Your task to perform on an android device: change alarm snooze length Image 0: 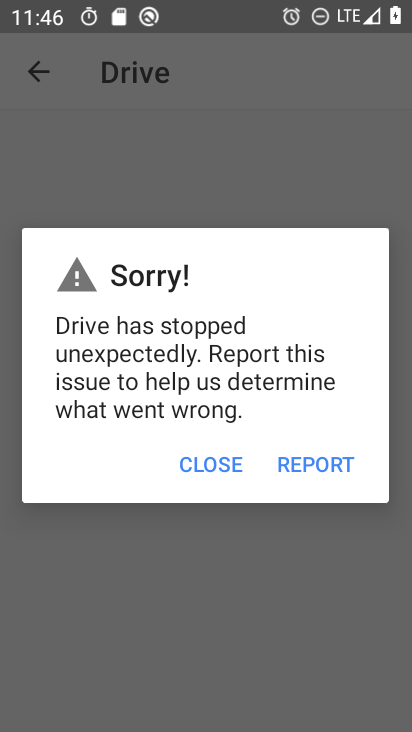
Step 0: press home button
Your task to perform on an android device: change alarm snooze length Image 1: 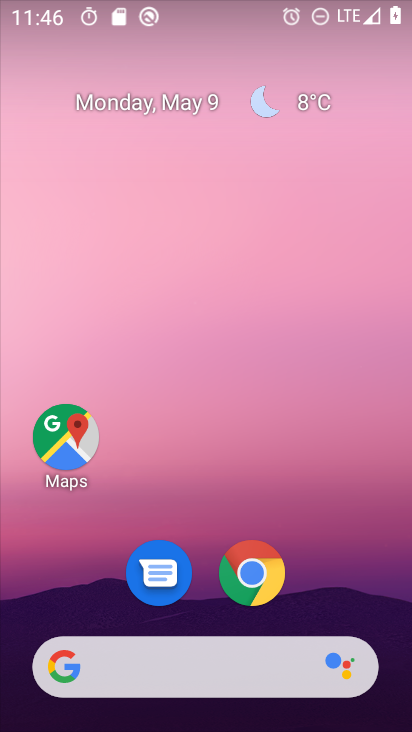
Step 1: drag from (337, 505) to (299, 112)
Your task to perform on an android device: change alarm snooze length Image 2: 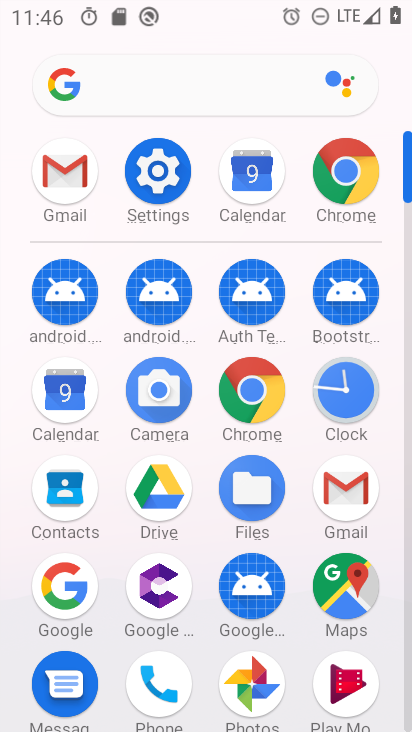
Step 2: click (352, 397)
Your task to perform on an android device: change alarm snooze length Image 3: 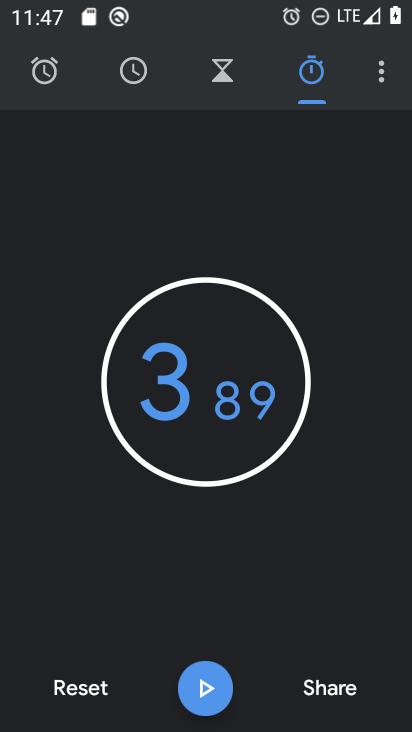
Step 3: click (378, 70)
Your task to perform on an android device: change alarm snooze length Image 4: 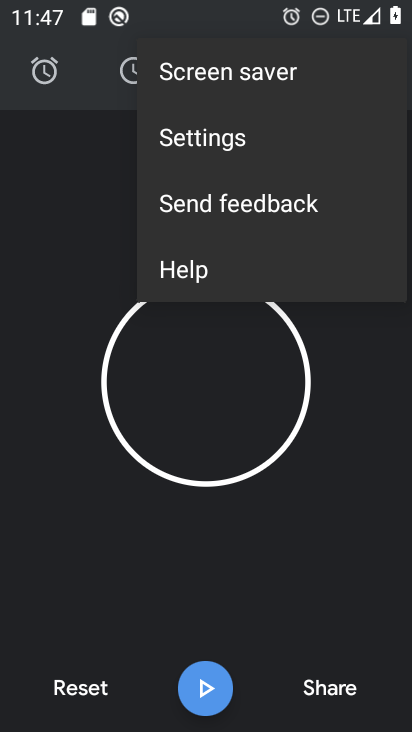
Step 4: click (233, 150)
Your task to perform on an android device: change alarm snooze length Image 5: 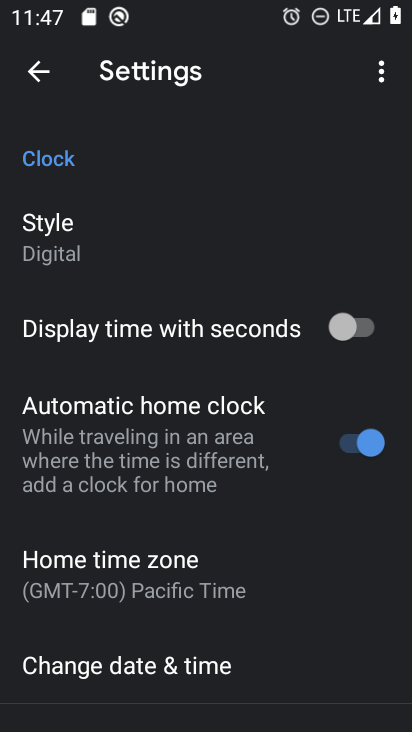
Step 5: drag from (151, 607) to (198, 165)
Your task to perform on an android device: change alarm snooze length Image 6: 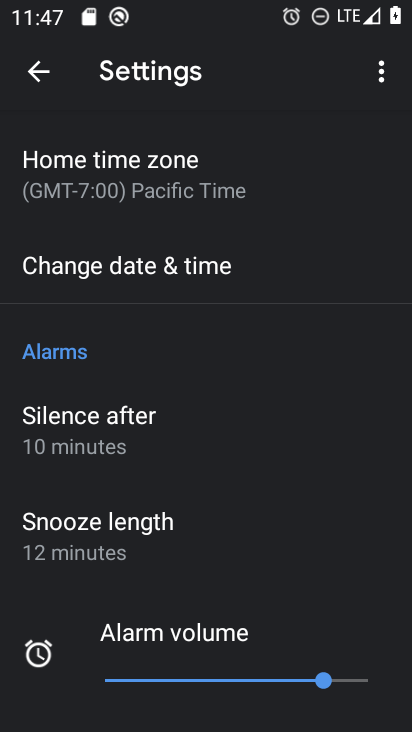
Step 6: click (147, 545)
Your task to perform on an android device: change alarm snooze length Image 7: 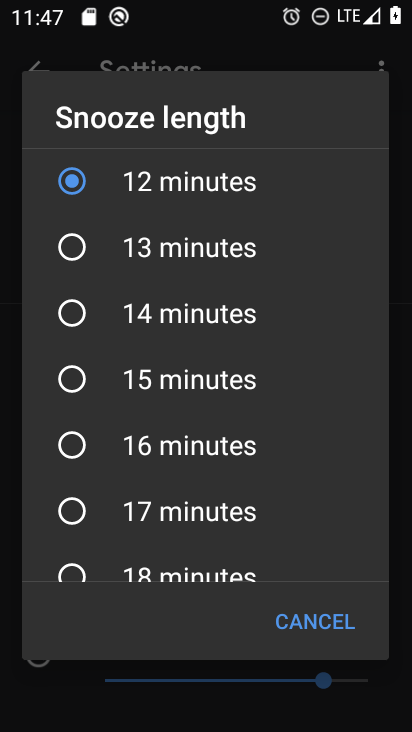
Step 7: click (189, 250)
Your task to perform on an android device: change alarm snooze length Image 8: 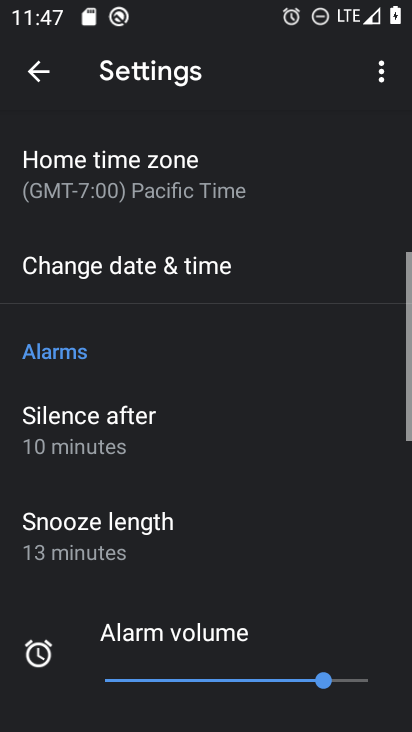
Step 8: task complete